Your task to perform on an android device: check data usage Image 0: 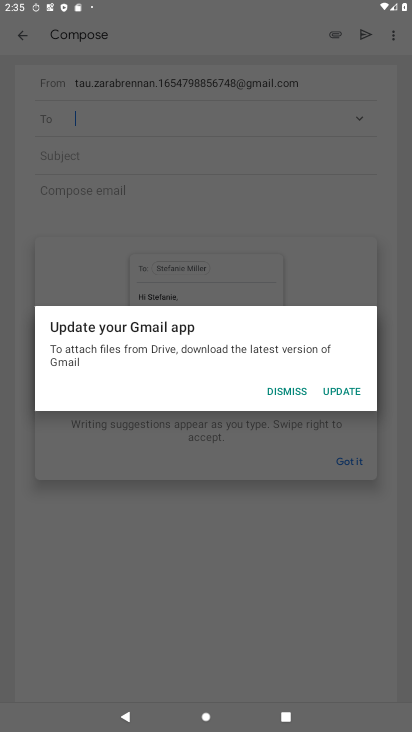
Step 0: drag from (225, 453) to (246, 122)
Your task to perform on an android device: check data usage Image 1: 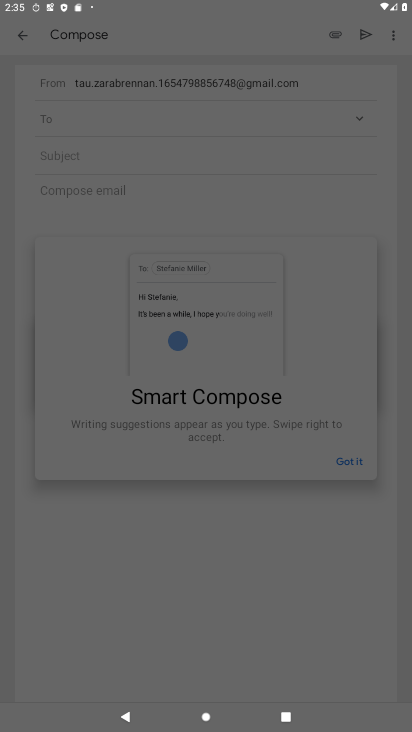
Step 1: click (219, 220)
Your task to perform on an android device: check data usage Image 2: 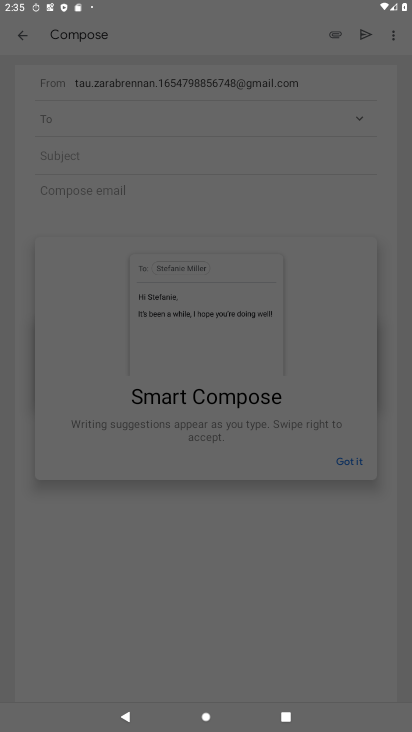
Step 2: press back button
Your task to perform on an android device: check data usage Image 3: 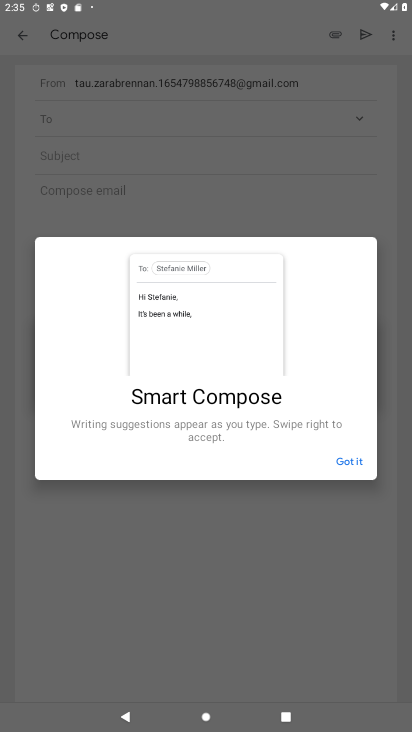
Step 3: click (344, 457)
Your task to perform on an android device: check data usage Image 4: 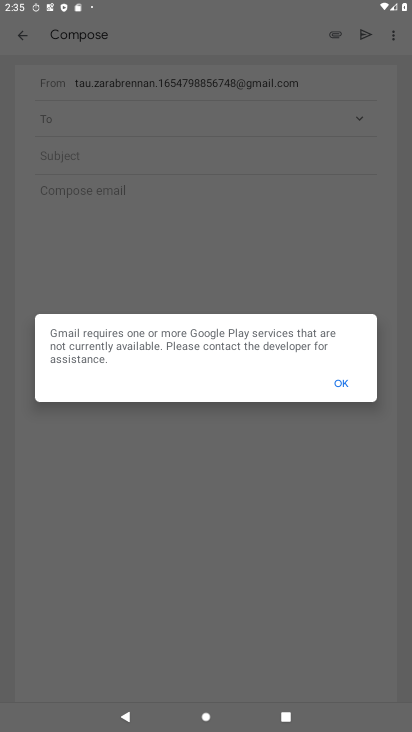
Step 4: click (329, 381)
Your task to perform on an android device: check data usage Image 5: 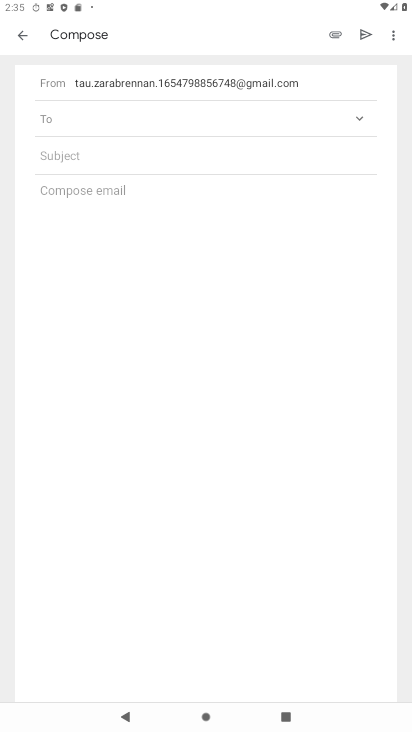
Step 5: press back button
Your task to perform on an android device: check data usage Image 6: 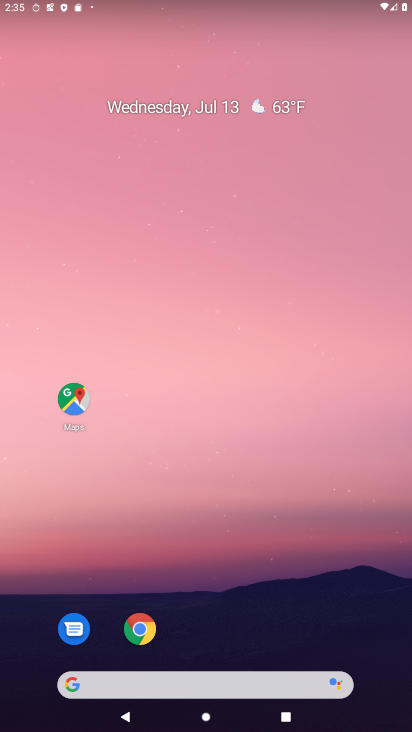
Step 6: drag from (177, 601) to (298, 11)
Your task to perform on an android device: check data usage Image 7: 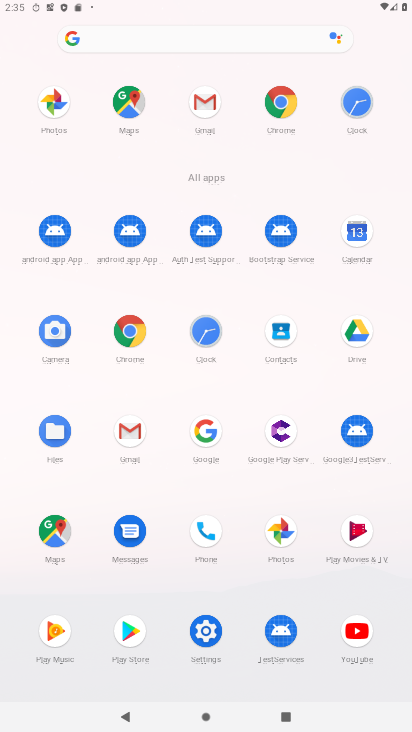
Step 7: click (205, 624)
Your task to perform on an android device: check data usage Image 8: 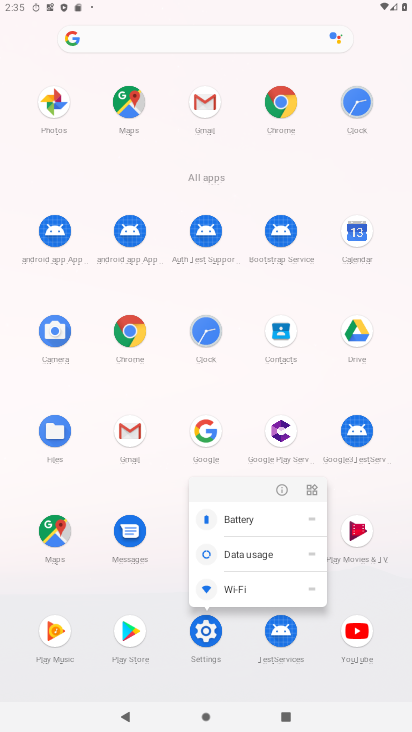
Step 8: click (247, 549)
Your task to perform on an android device: check data usage Image 9: 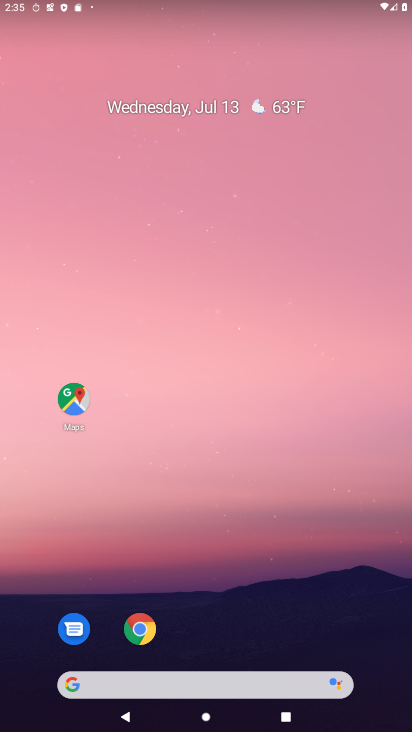
Step 9: drag from (183, 635) to (189, 176)
Your task to perform on an android device: check data usage Image 10: 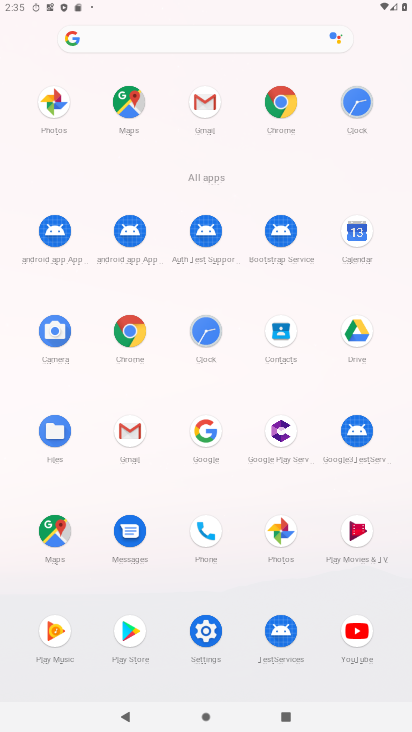
Step 10: click (199, 628)
Your task to perform on an android device: check data usage Image 11: 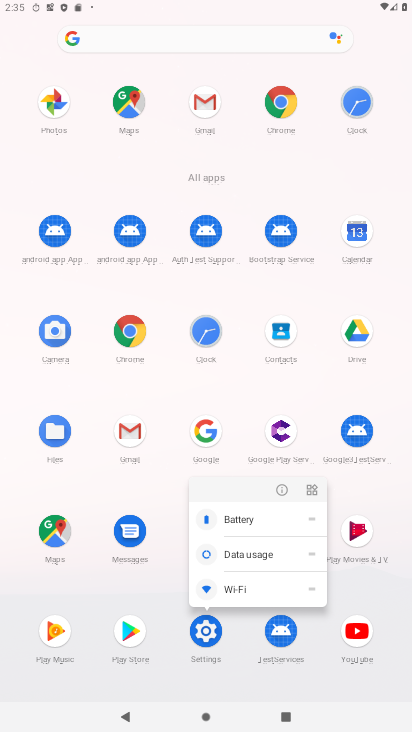
Step 11: click (289, 485)
Your task to perform on an android device: check data usage Image 12: 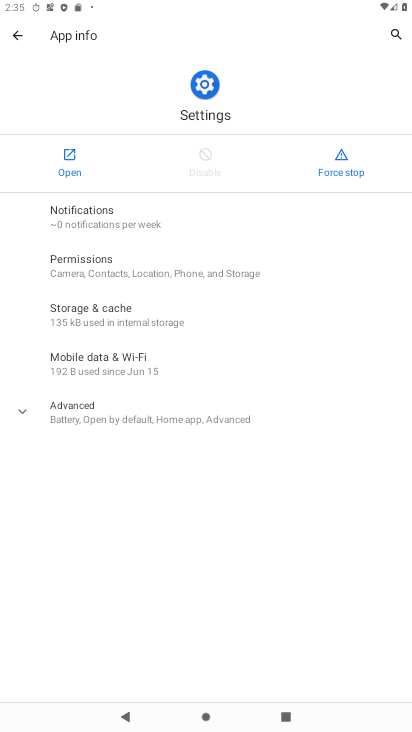
Step 12: click (65, 160)
Your task to perform on an android device: check data usage Image 13: 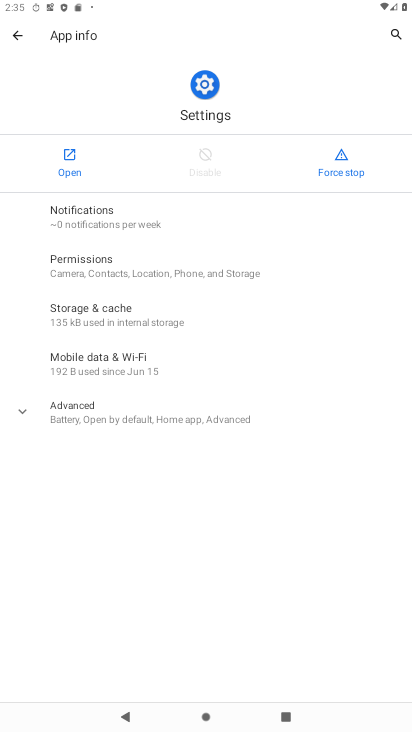
Step 13: click (70, 165)
Your task to perform on an android device: check data usage Image 14: 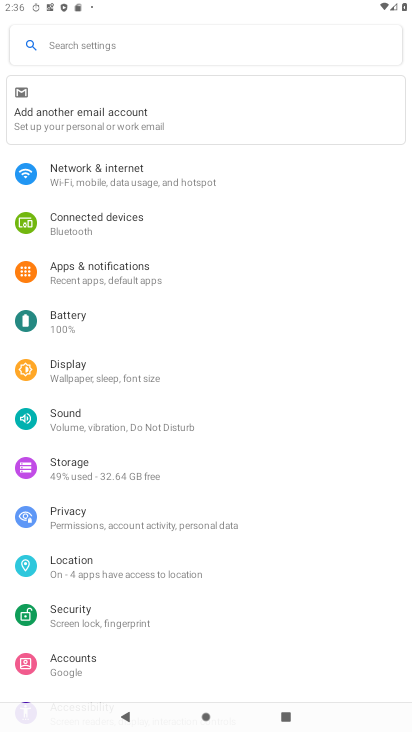
Step 14: click (125, 177)
Your task to perform on an android device: check data usage Image 15: 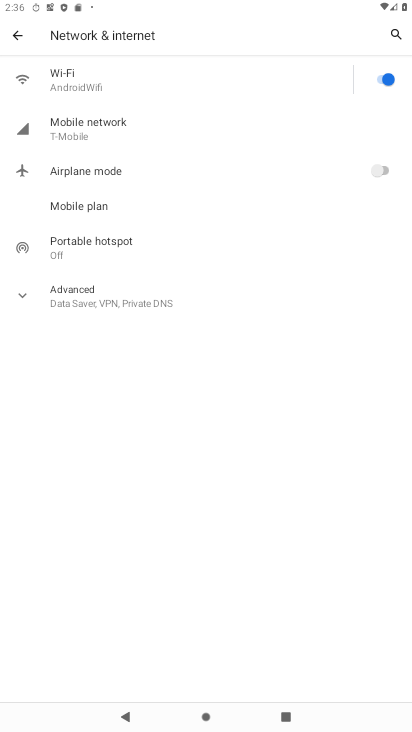
Step 15: click (127, 134)
Your task to perform on an android device: check data usage Image 16: 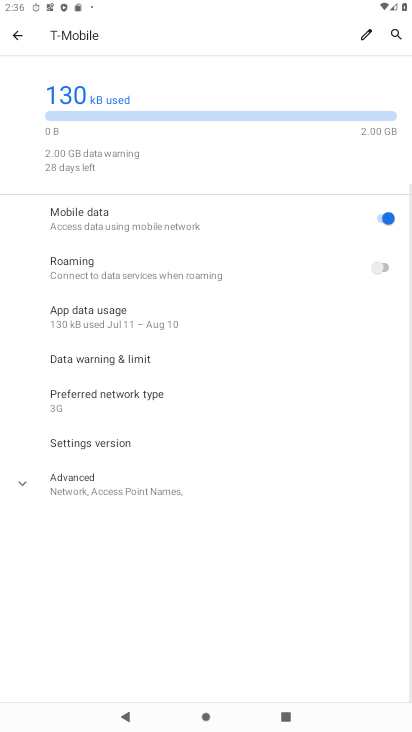
Step 16: task complete